Your task to perform on an android device: show emergency info Image 0: 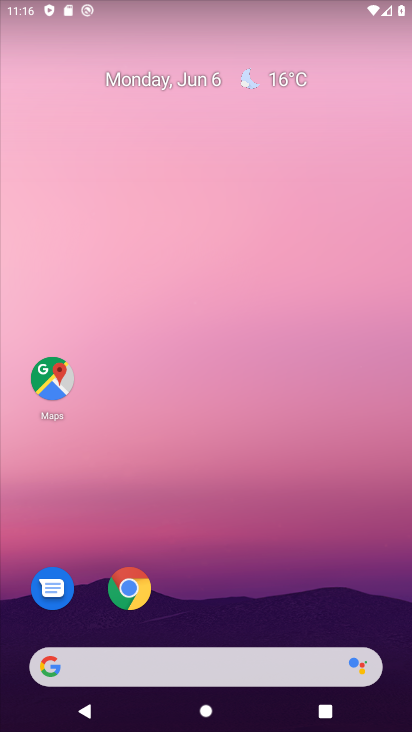
Step 0: drag from (233, 593) to (193, 46)
Your task to perform on an android device: show emergency info Image 1: 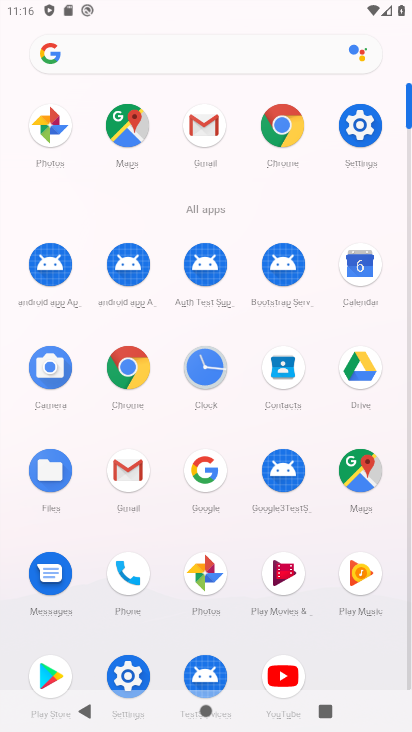
Step 1: click (358, 126)
Your task to perform on an android device: show emergency info Image 2: 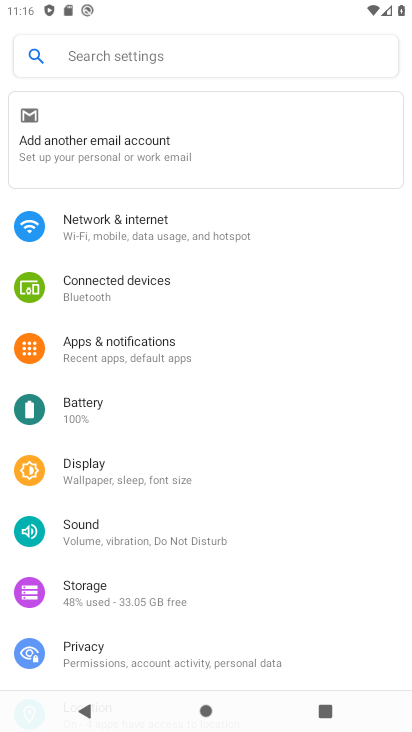
Step 2: drag from (131, 414) to (182, 338)
Your task to perform on an android device: show emergency info Image 3: 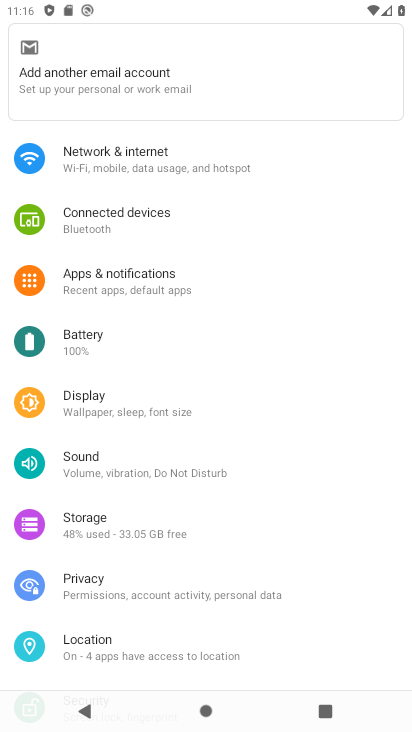
Step 3: drag from (117, 441) to (209, 340)
Your task to perform on an android device: show emergency info Image 4: 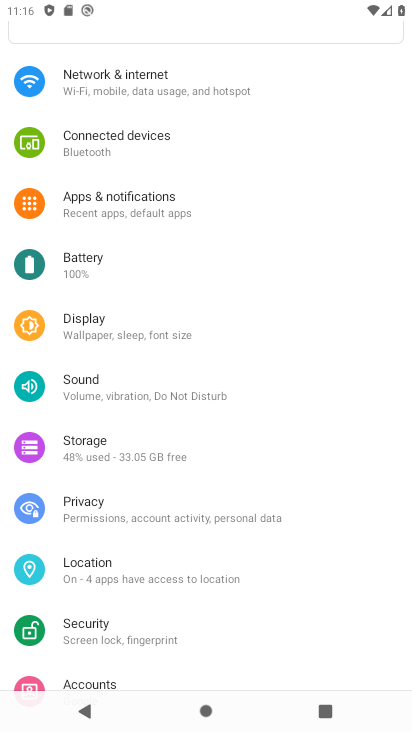
Step 4: drag from (130, 423) to (198, 340)
Your task to perform on an android device: show emergency info Image 5: 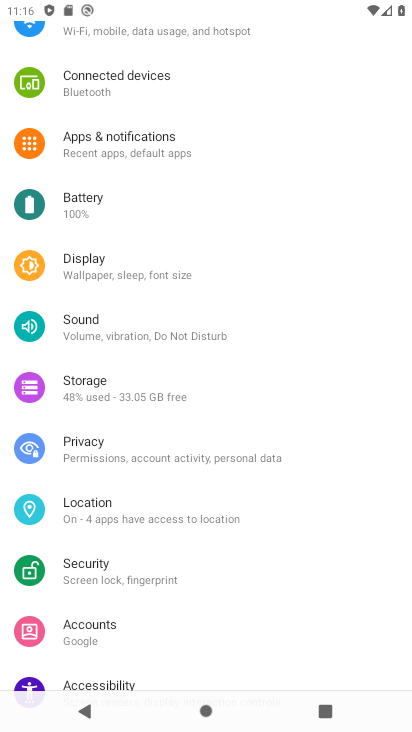
Step 5: drag from (102, 483) to (180, 378)
Your task to perform on an android device: show emergency info Image 6: 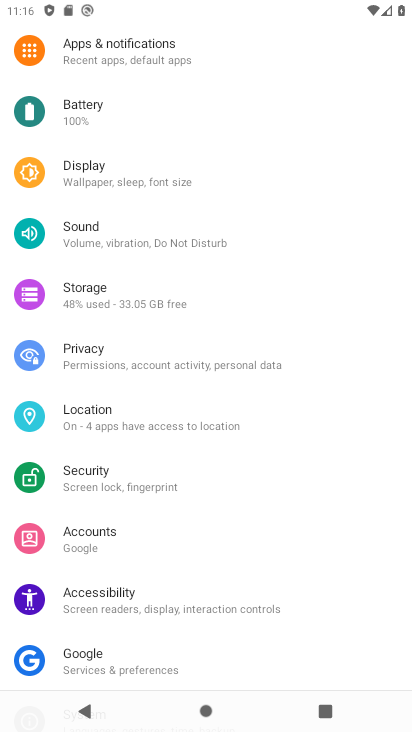
Step 6: drag from (114, 456) to (193, 363)
Your task to perform on an android device: show emergency info Image 7: 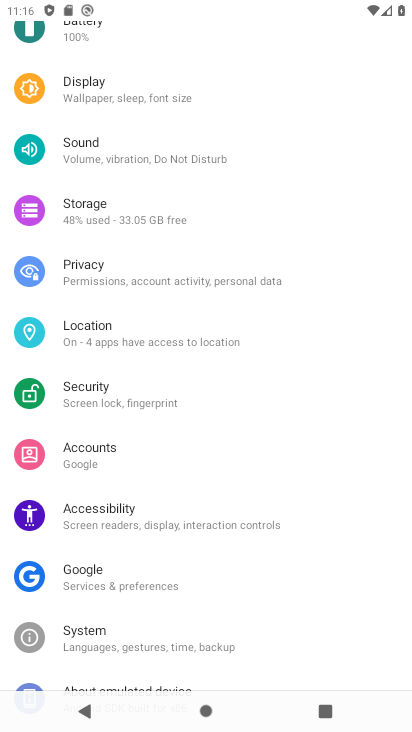
Step 7: drag from (125, 421) to (187, 344)
Your task to perform on an android device: show emergency info Image 8: 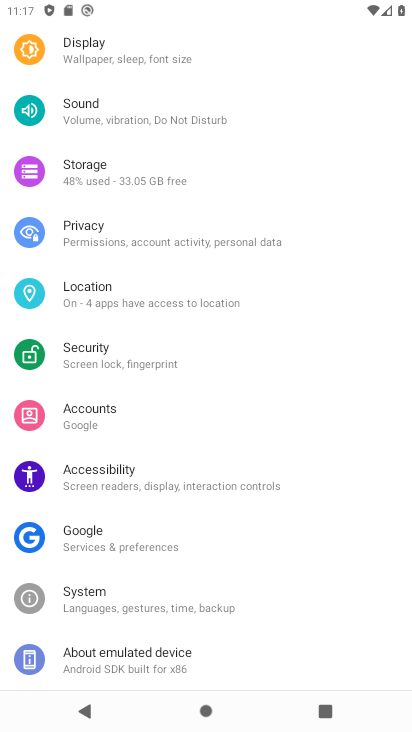
Step 8: drag from (108, 499) to (196, 389)
Your task to perform on an android device: show emergency info Image 9: 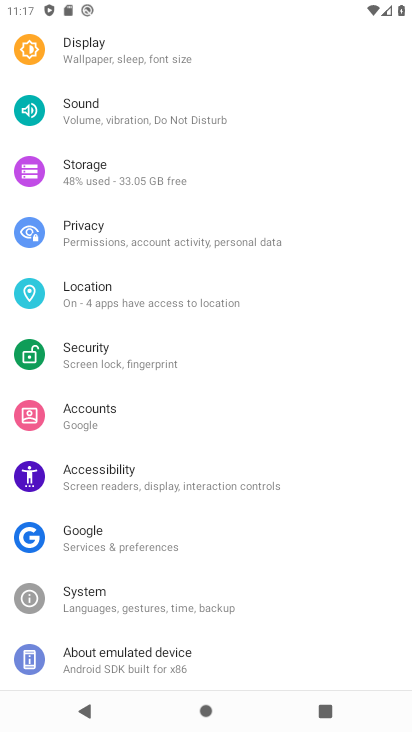
Step 9: click (138, 657)
Your task to perform on an android device: show emergency info Image 10: 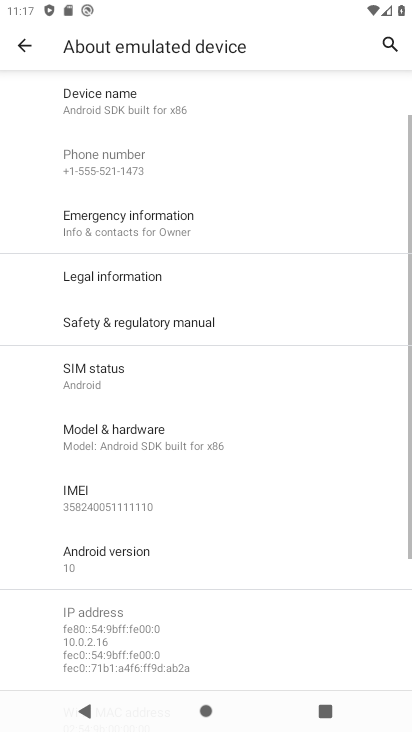
Step 10: click (179, 222)
Your task to perform on an android device: show emergency info Image 11: 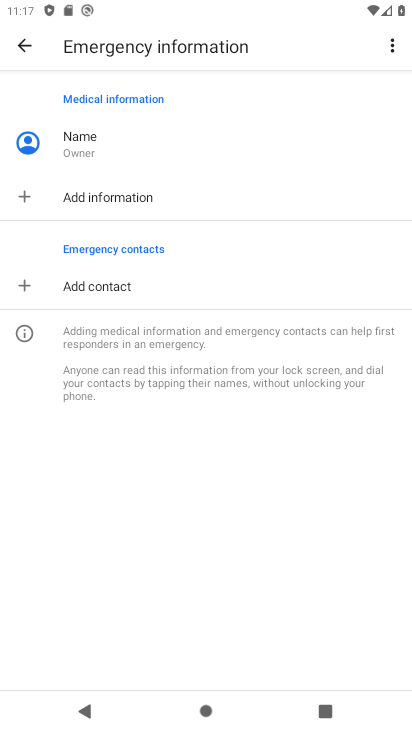
Step 11: task complete